Your task to perform on an android device: see tabs open on other devices in the chrome app Image 0: 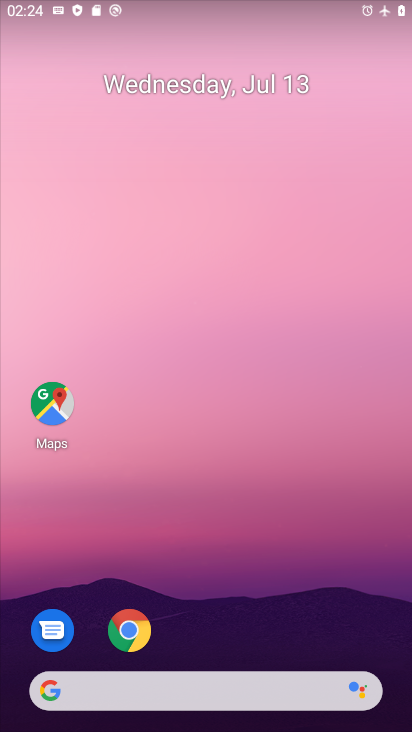
Step 0: click (139, 626)
Your task to perform on an android device: see tabs open on other devices in the chrome app Image 1: 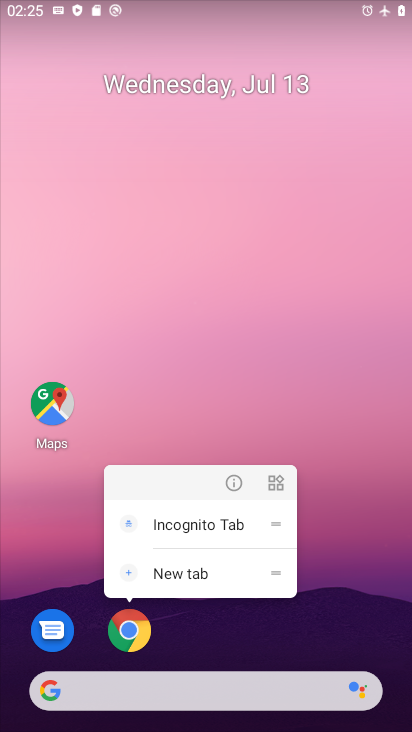
Step 1: click (139, 630)
Your task to perform on an android device: see tabs open on other devices in the chrome app Image 2: 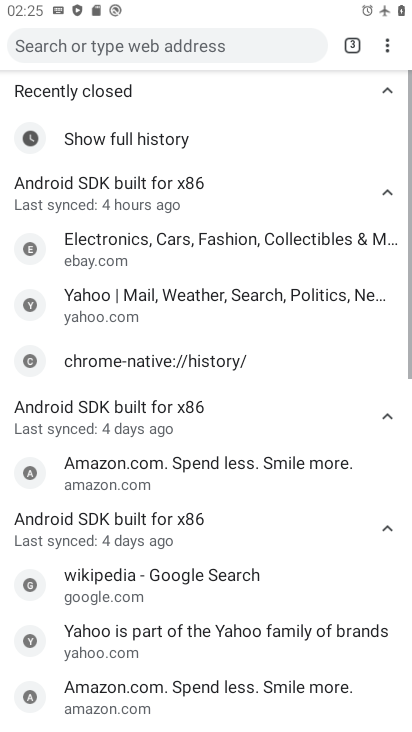
Step 2: click (385, 46)
Your task to perform on an android device: see tabs open on other devices in the chrome app Image 3: 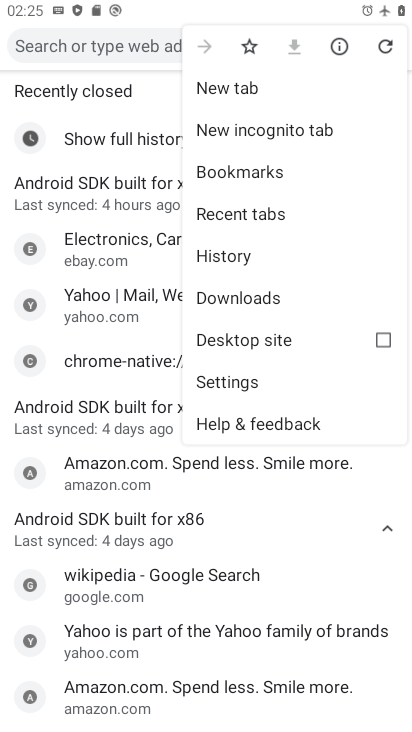
Step 3: click (277, 198)
Your task to perform on an android device: see tabs open on other devices in the chrome app Image 4: 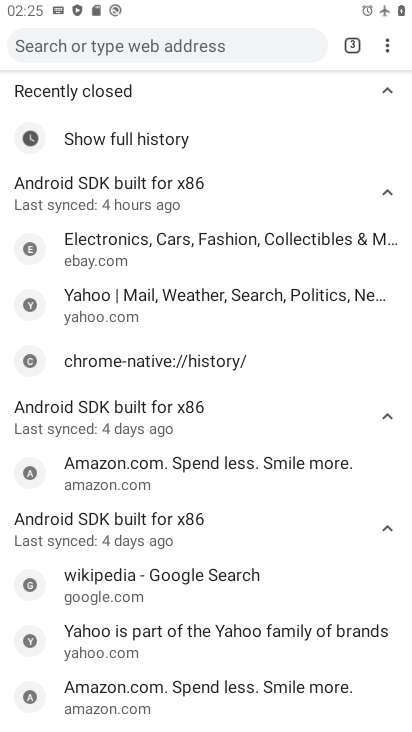
Step 4: task complete